Your task to perform on an android device: manage bookmarks in the chrome app Image 0: 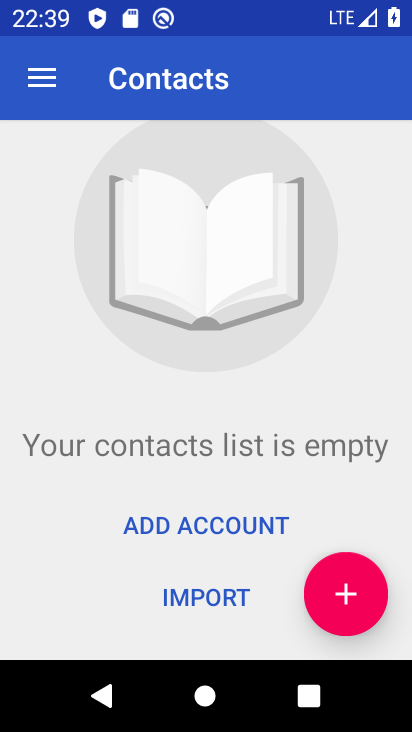
Step 0: press home button
Your task to perform on an android device: manage bookmarks in the chrome app Image 1: 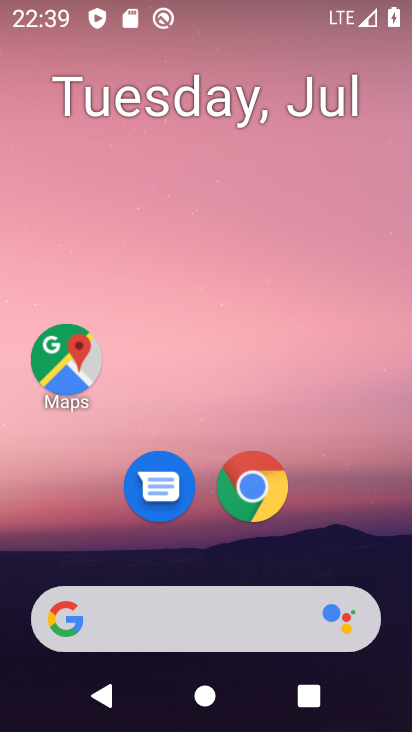
Step 1: drag from (370, 555) to (381, 187)
Your task to perform on an android device: manage bookmarks in the chrome app Image 2: 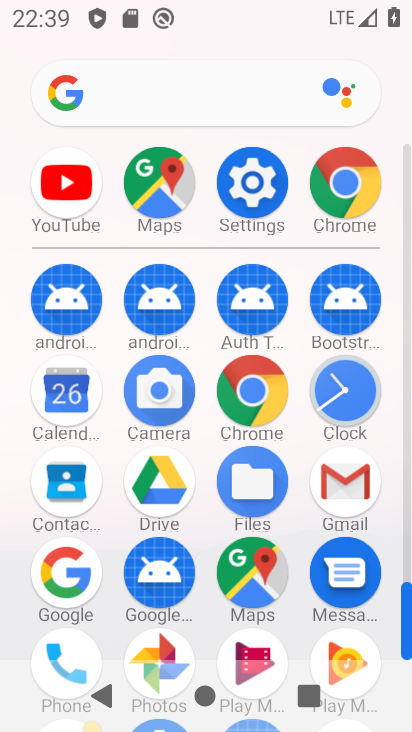
Step 2: click (253, 399)
Your task to perform on an android device: manage bookmarks in the chrome app Image 3: 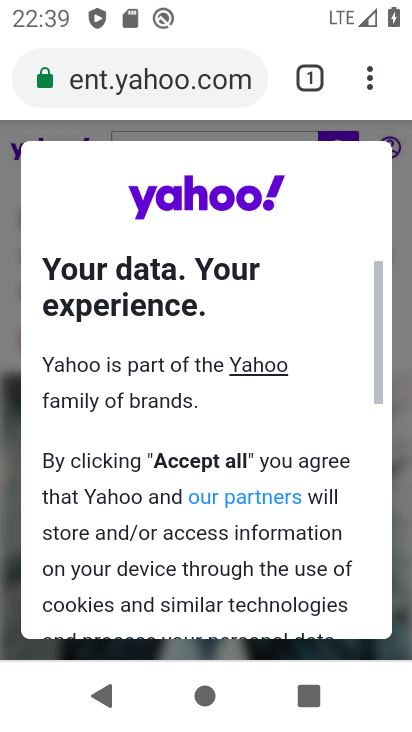
Step 3: click (368, 83)
Your task to perform on an android device: manage bookmarks in the chrome app Image 4: 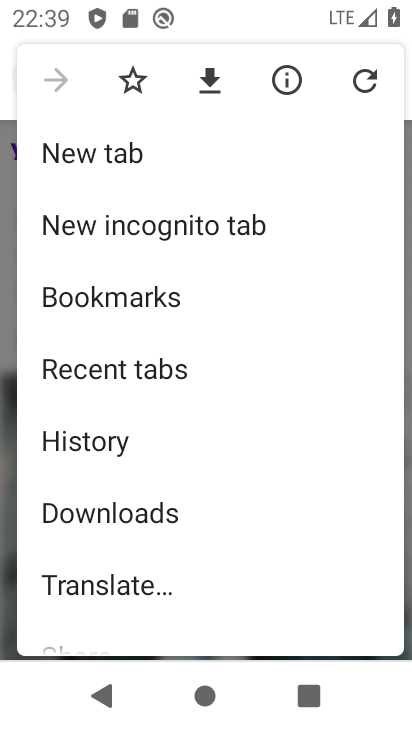
Step 4: drag from (313, 429) to (318, 363)
Your task to perform on an android device: manage bookmarks in the chrome app Image 5: 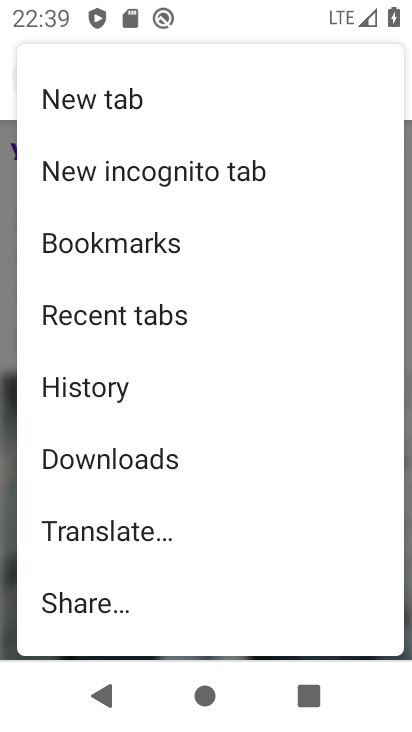
Step 5: drag from (297, 486) to (298, 371)
Your task to perform on an android device: manage bookmarks in the chrome app Image 6: 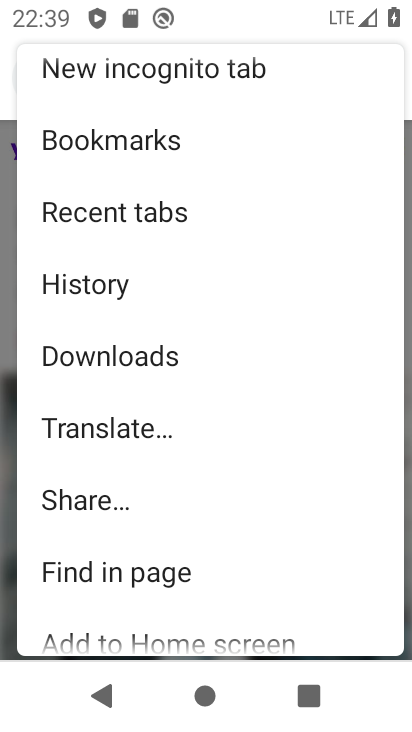
Step 6: drag from (285, 473) to (294, 249)
Your task to perform on an android device: manage bookmarks in the chrome app Image 7: 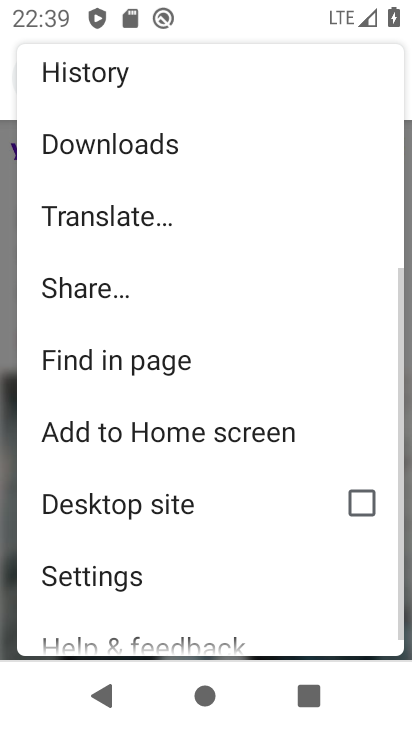
Step 7: drag from (310, 200) to (293, 412)
Your task to perform on an android device: manage bookmarks in the chrome app Image 8: 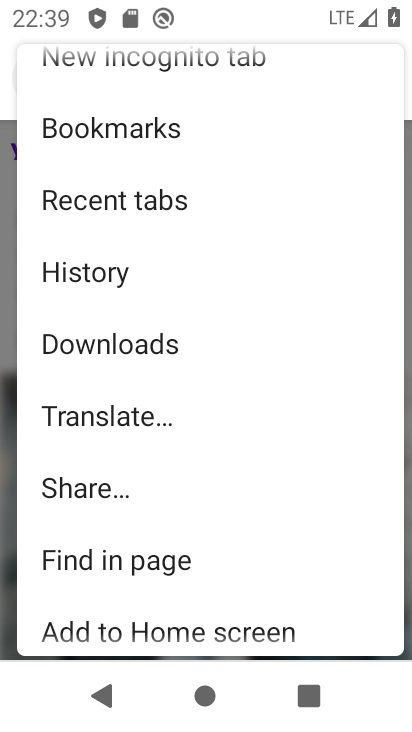
Step 8: drag from (287, 188) to (279, 481)
Your task to perform on an android device: manage bookmarks in the chrome app Image 9: 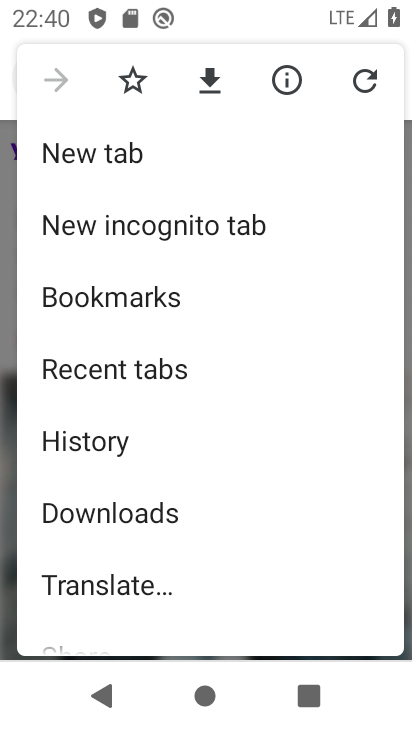
Step 9: click (200, 299)
Your task to perform on an android device: manage bookmarks in the chrome app Image 10: 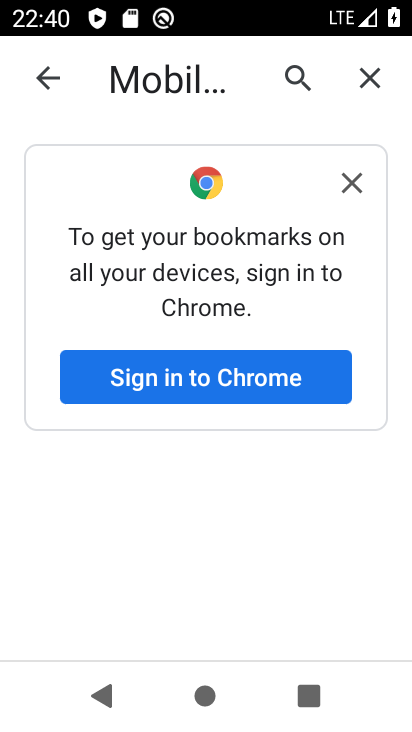
Step 10: click (338, 177)
Your task to perform on an android device: manage bookmarks in the chrome app Image 11: 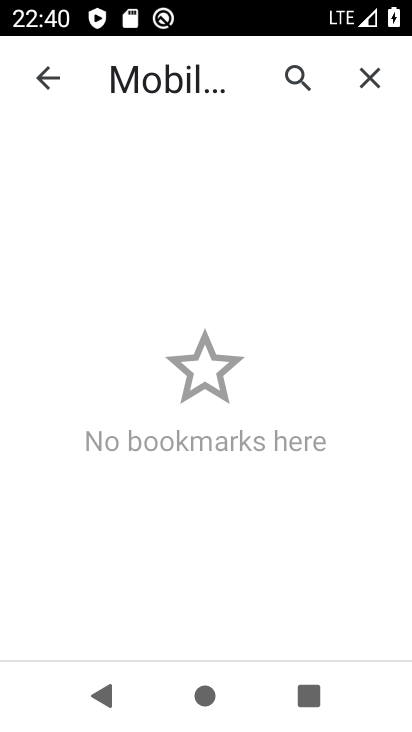
Step 11: task complete